Your task to perform on an android device: add a label to a message in the gmail app Image 0: 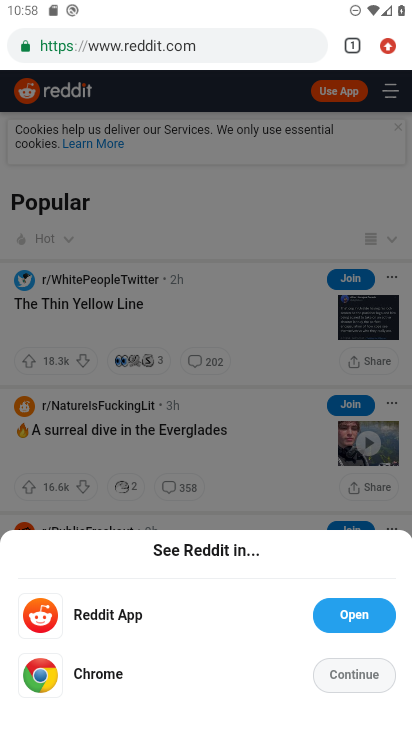
Step 0: press home button
Your task to perform on an android device: add a label to a message in the gmail app Image 1: 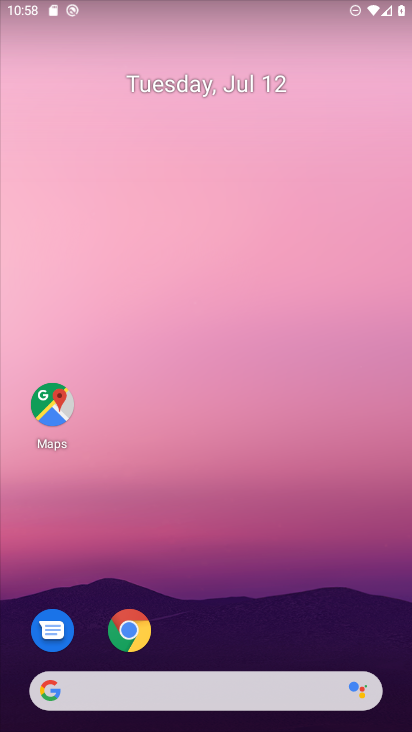
Step 1: drag from (315, 617) to (266, 211)
Your task to perform on an android device: add a label to a message in the gmail app Image 2: 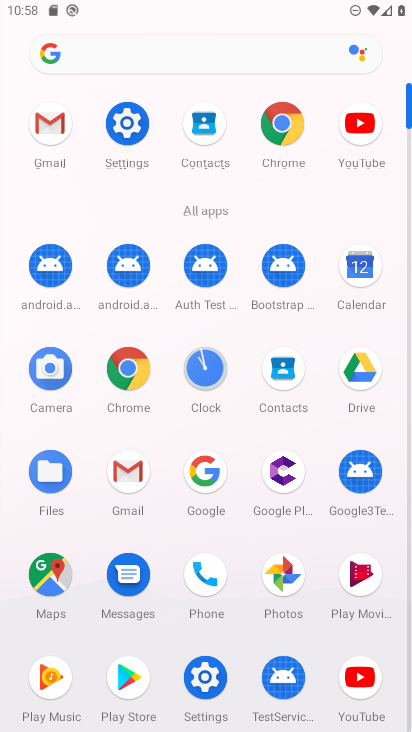
Step 2: click (51, 137)
Your task to perform on an android device: add a label to a message in the gmail app Image 3: 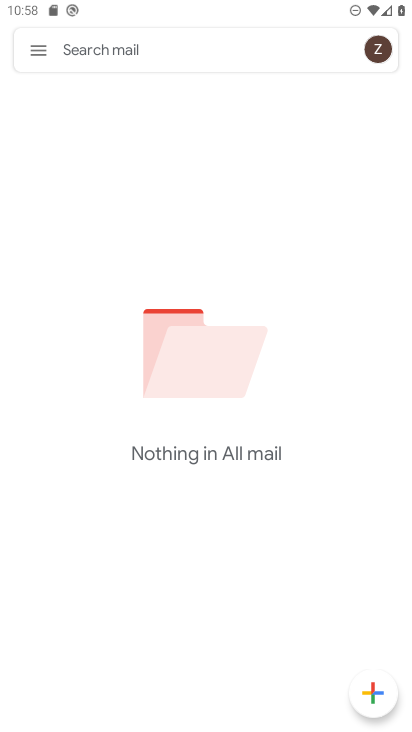
Step 3: press home button
Your task to perform on an android device: add a label to a message in the gmail app Image 4: 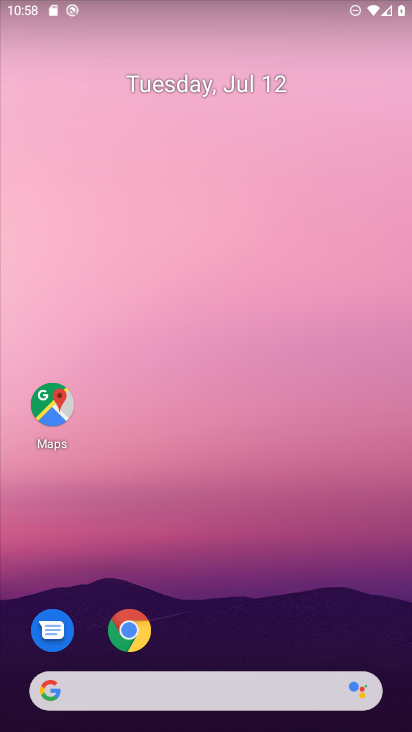
Step 4: drag from (324, 614) to (216, 124)
Your task to perform on an android device: add a label to a message in the gmail app Image 5: 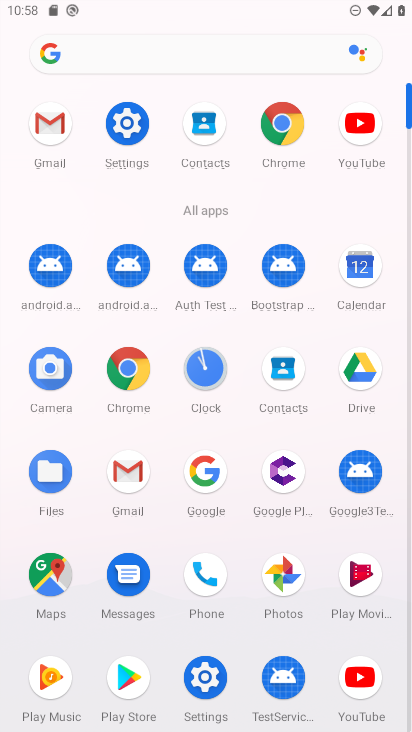
Step 5: click (55, 134)
Your task to perform on an android device: add a label to a message in the gmail app Image 6: 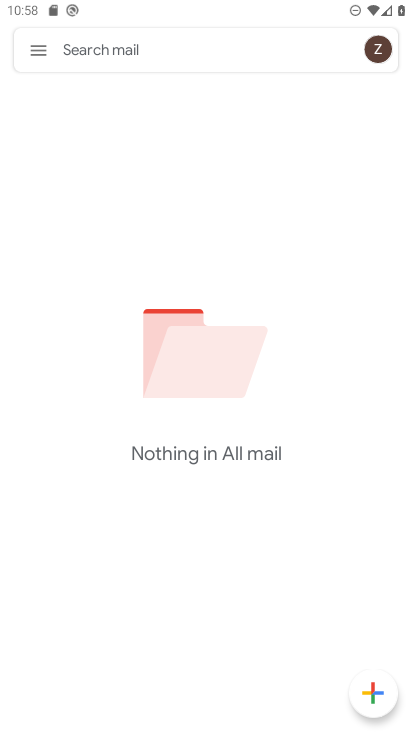
Step 6: task complete